Your task to perform on an android device: Go to internet settings Image 0: 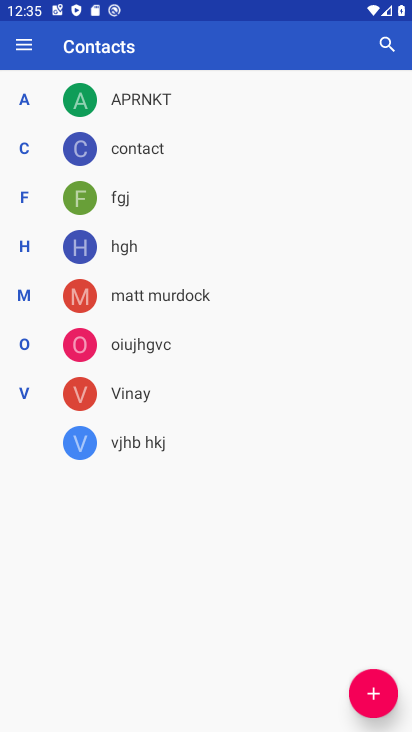
Step 0: press home button
Your task to perform on an android device: Go to internet settings Image 1: 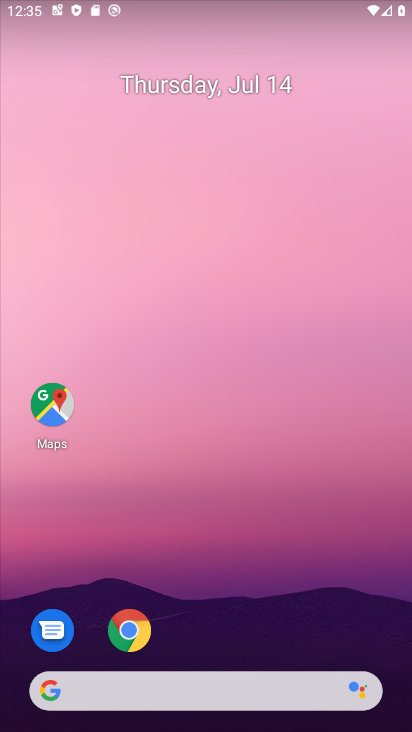
Step 1: drag from (204, 480) to (204, 175)
Your task to perform on an android device: Go to internet settings Image 2: 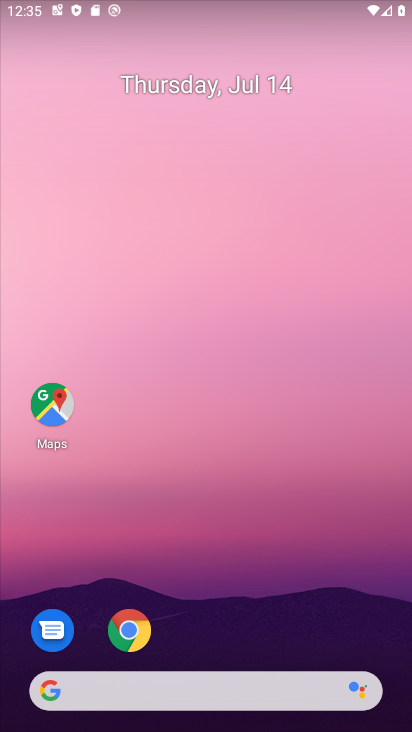
Step 2: drag from (259, 674) to (275, 133)
Your task to perform on an android device: Go to internet settings Image 3: 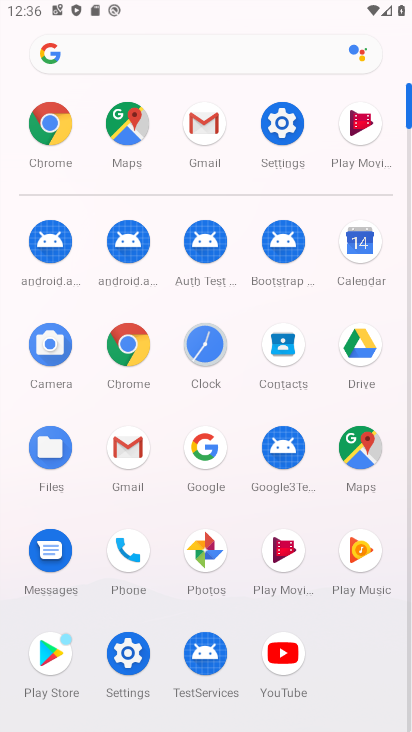
Step 3: click (131, 659)
Your task to perform on an android device: Go to internet settings Image 4: 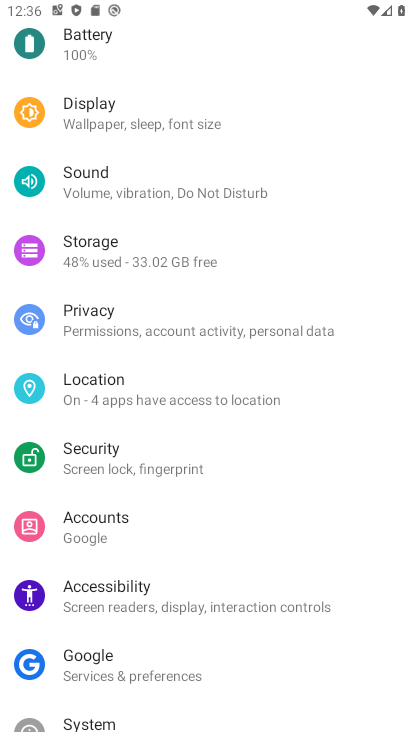
Step 4: drag from (167, 79) to (200, 711)
Your task to perform on an android device: Go to internet settings Image 5: 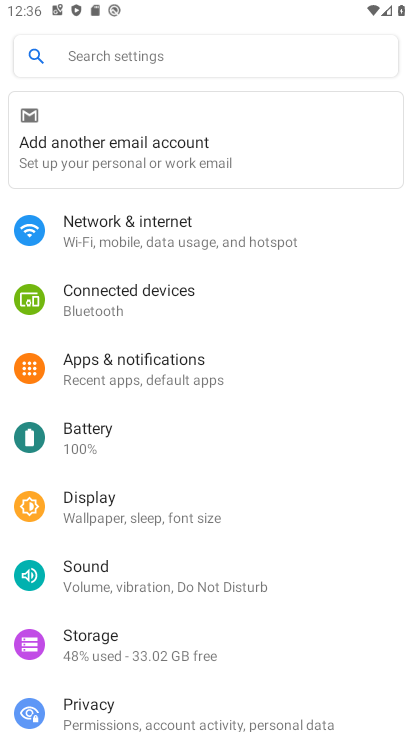
Step 5: click (158, 237)
Your task to perform on an android device: Go to internet settings Image 6: 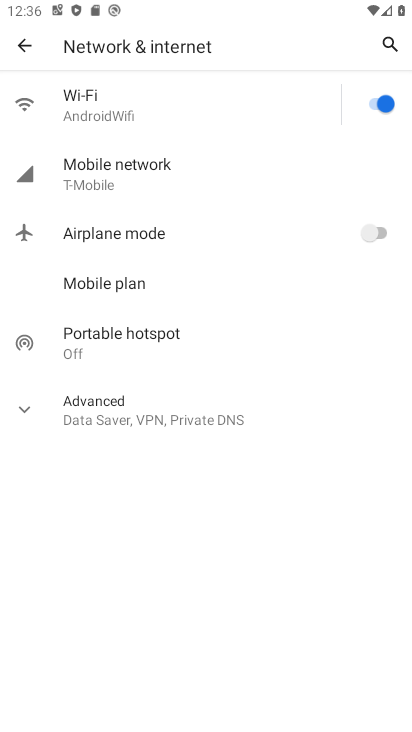
Step 6: click (156, 414)
Your task to perform on an android device: Go to internet settings Image 7: 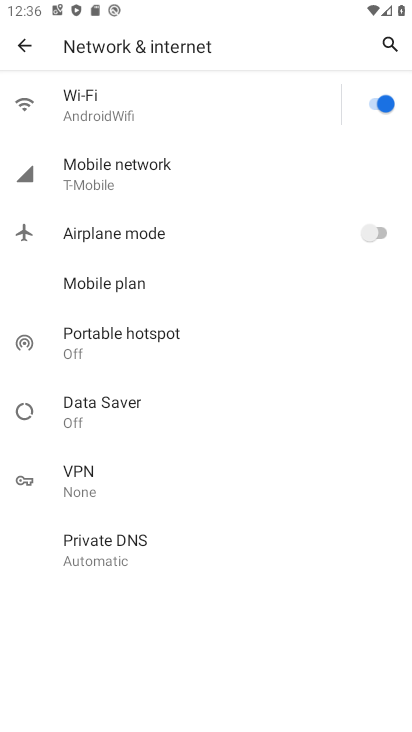
Step 7: task complete